Your task to perform on an android device: Clear the shopping cart on bestbuy.com. Add "asus rog" to the cart on bestbuy.com Image 0: 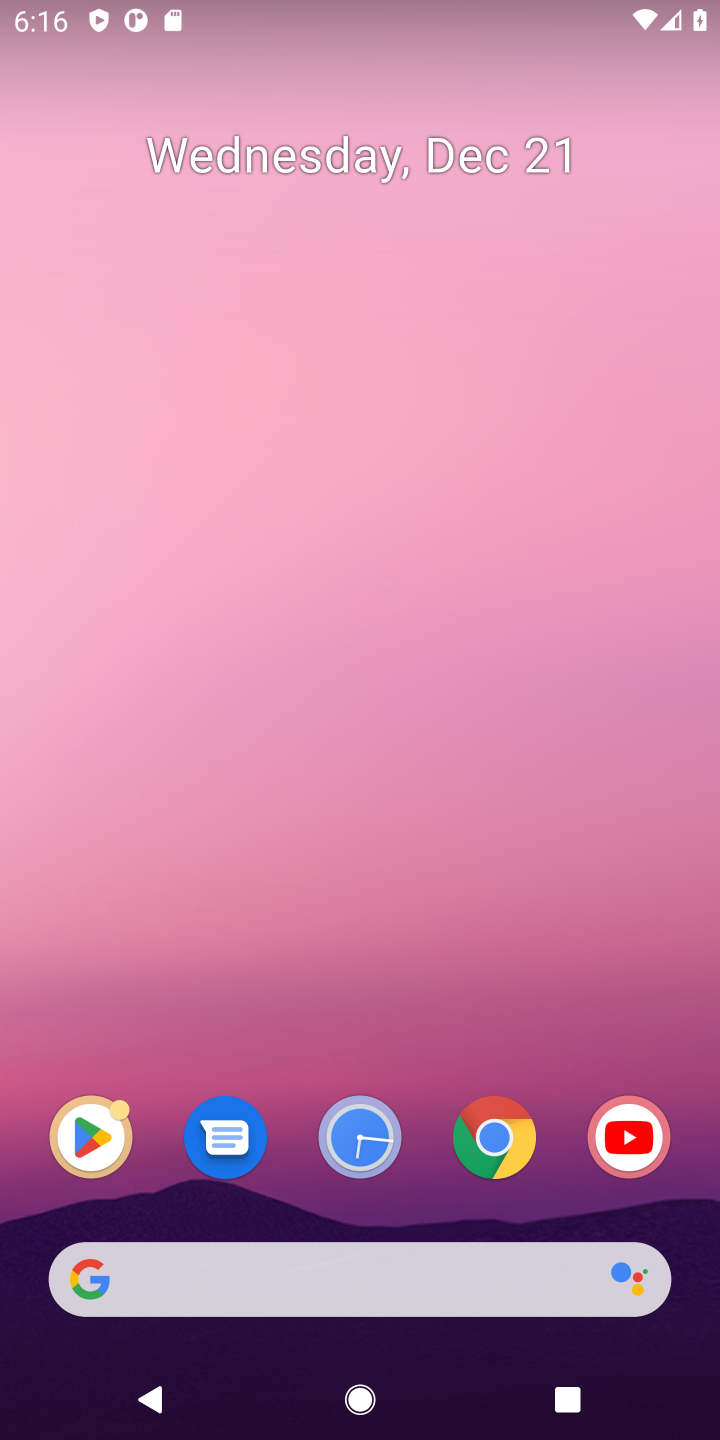
Step 0: click (493, 1160)
Your task to perform on an android device: Clear the shopping cart on bestbuy.com. Add "asus rog" to the cart on bestbuy.com Image 1: 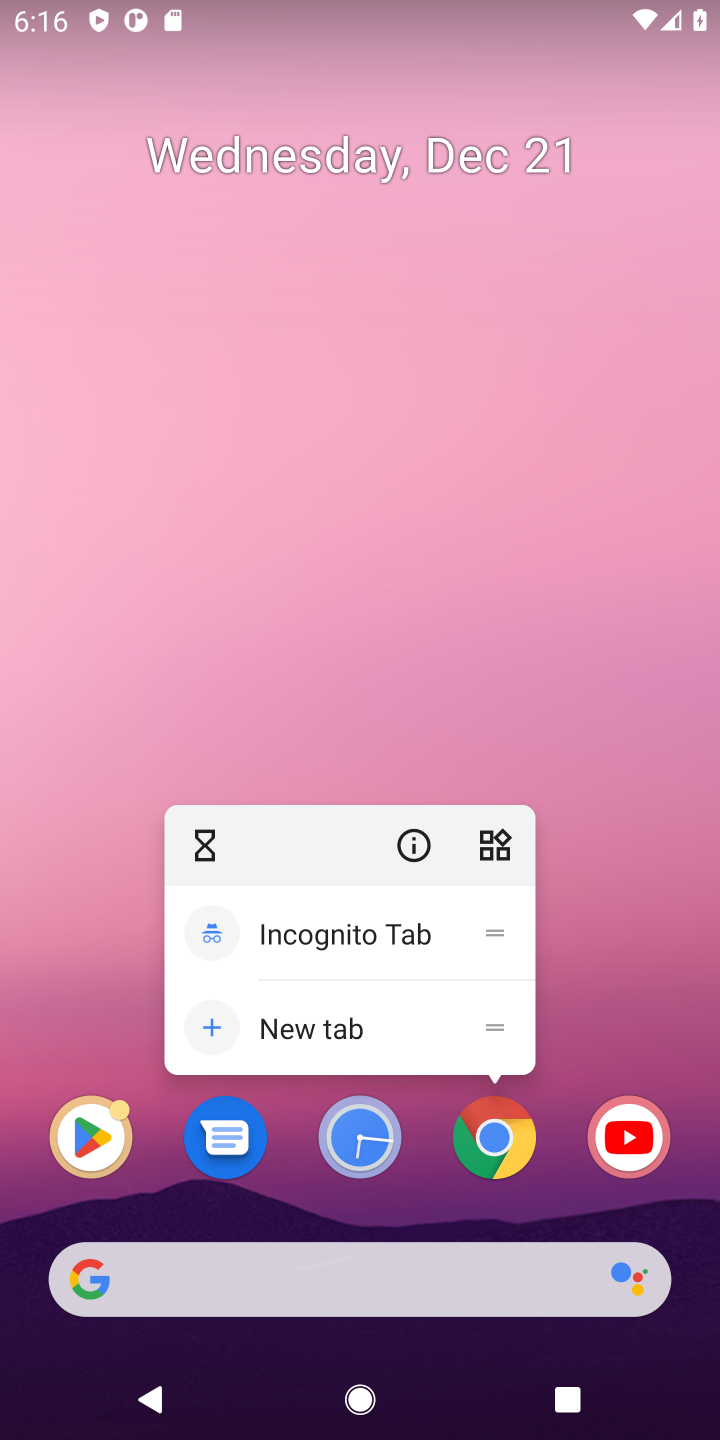
Step 1: click (498, 1151)
Your task to perform on an android device: Clear the shopping cart on bestbuy.com. Add "asus rog" to the cart on bestbuy.com Image 2: 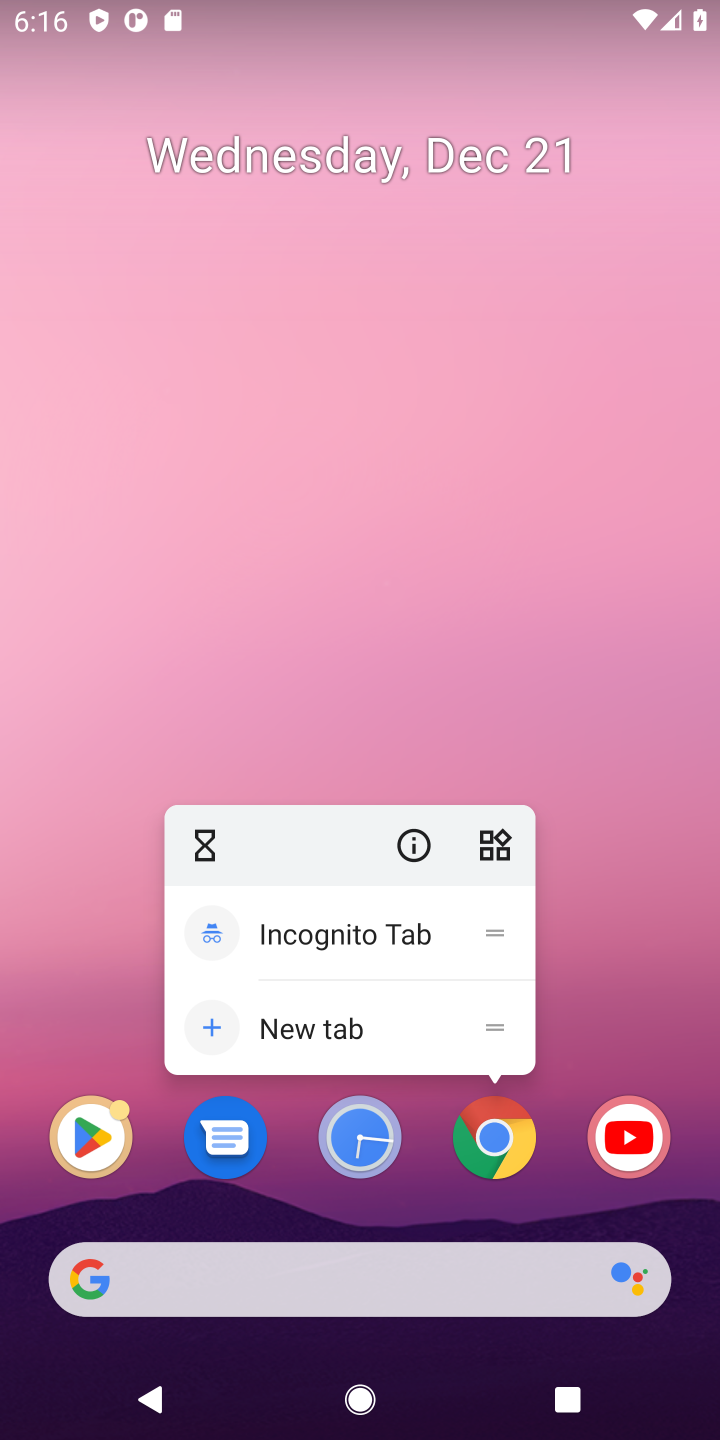
Step 2: click (498, 1151)
Your task to perform on an android device: Clear the shopping cart on bestbuy.com. Add "asus rog" to the cart on bestbuy.com Image 3: 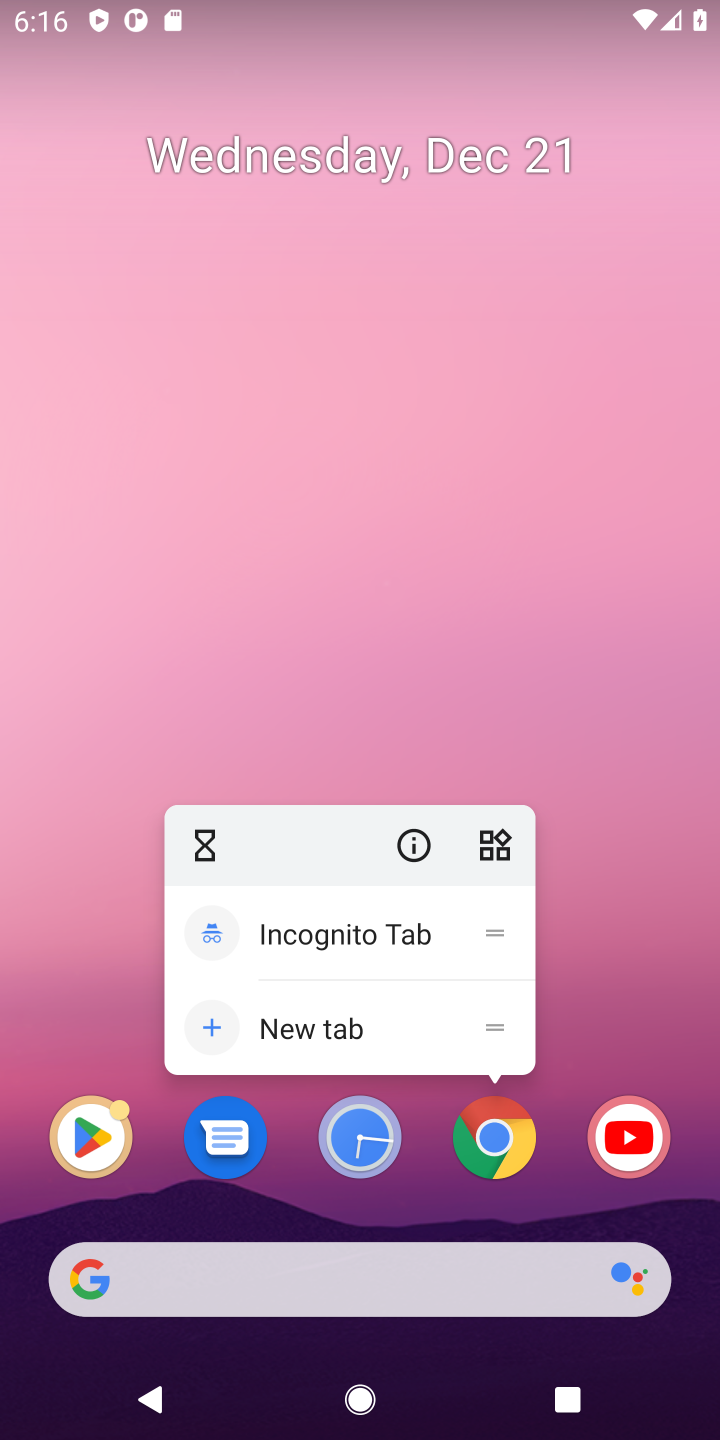
Step 3: click (498, 1151)
Your task to perform on an android device: Clear the shopping cart on bestbuy.com. Add "asus rog" to the cart on bestbuy.com Image 4: 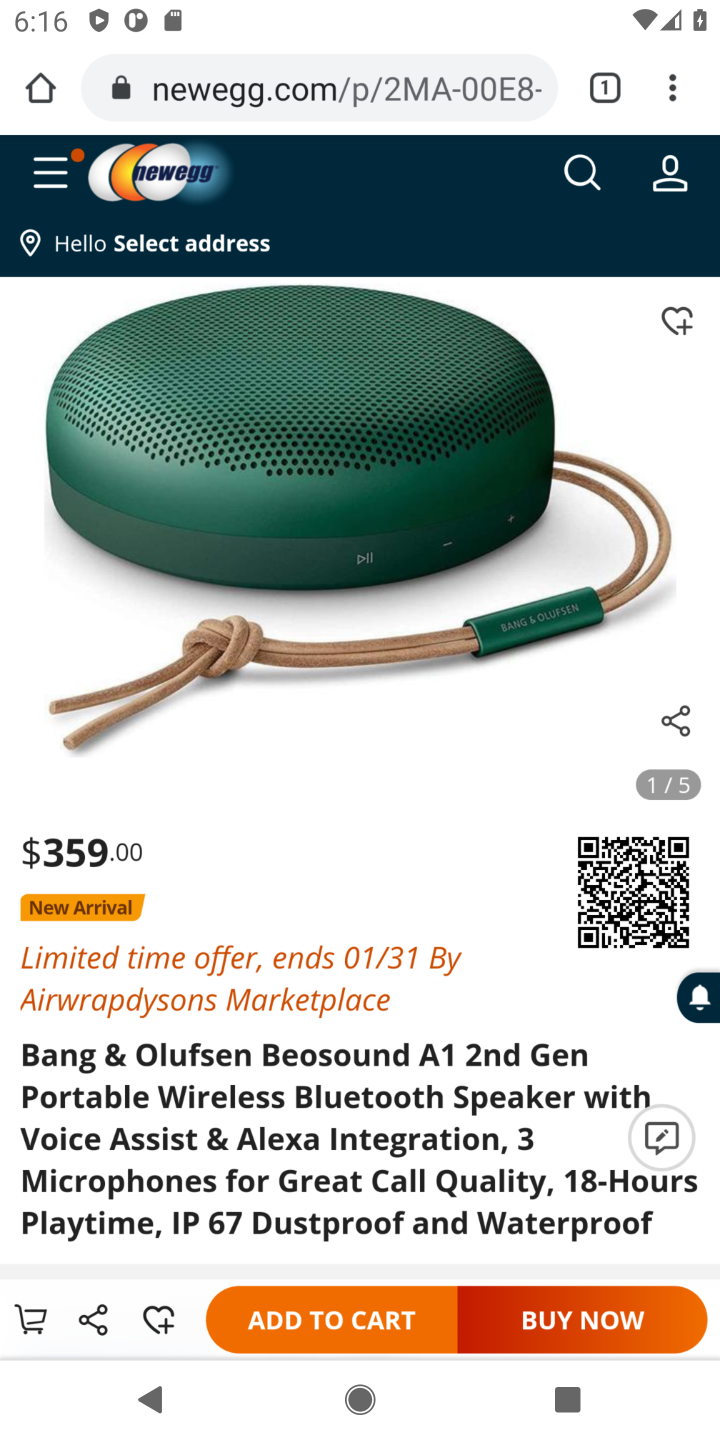
Step 4: click (298, 112)
Your task to perform on an android device: Clear the shopping cart on bestbuy.com. Add "asus rog" to the cart on bestbuy.com Image 5: 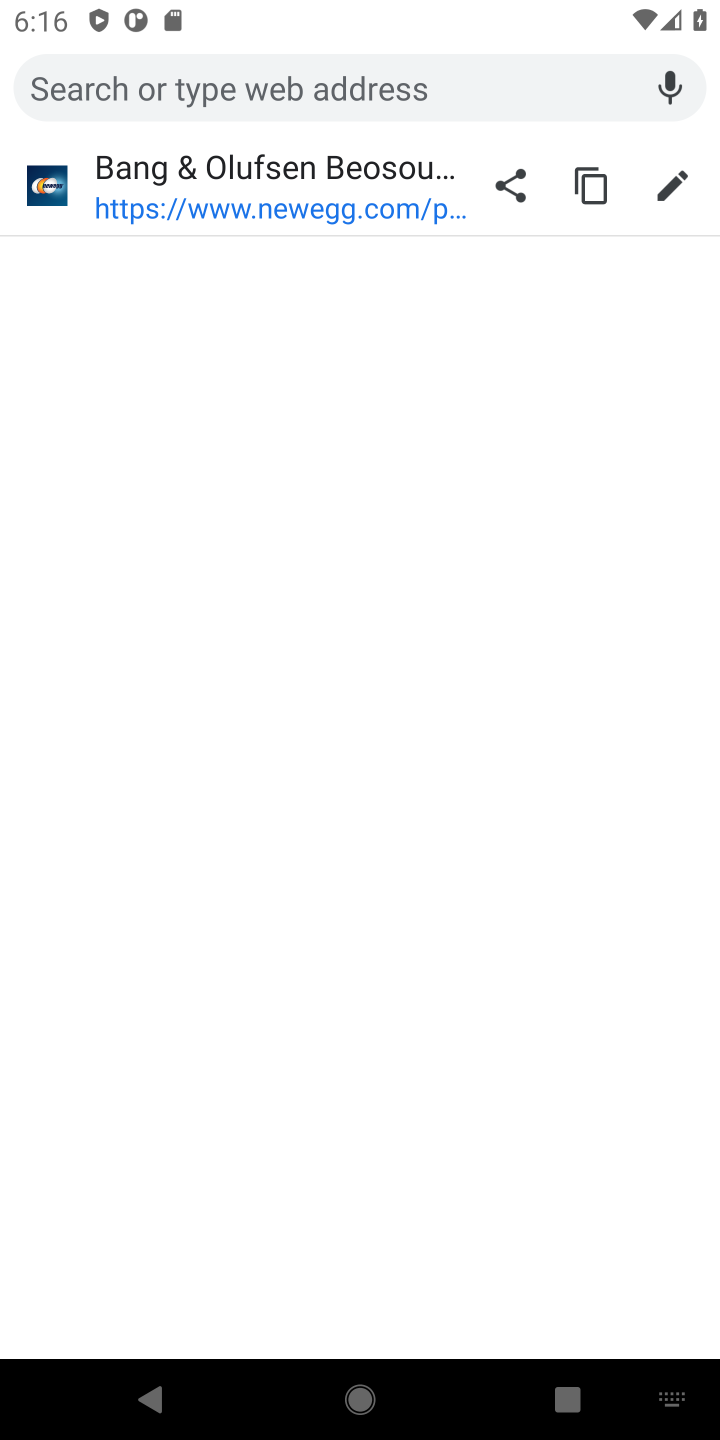
Step 5: type "bestbuy.com"
Your task to perform on an android device: Clear the shopping cart on bestbuy.com. Add "asus rog" to the cart on bestbuy.com Image 6: 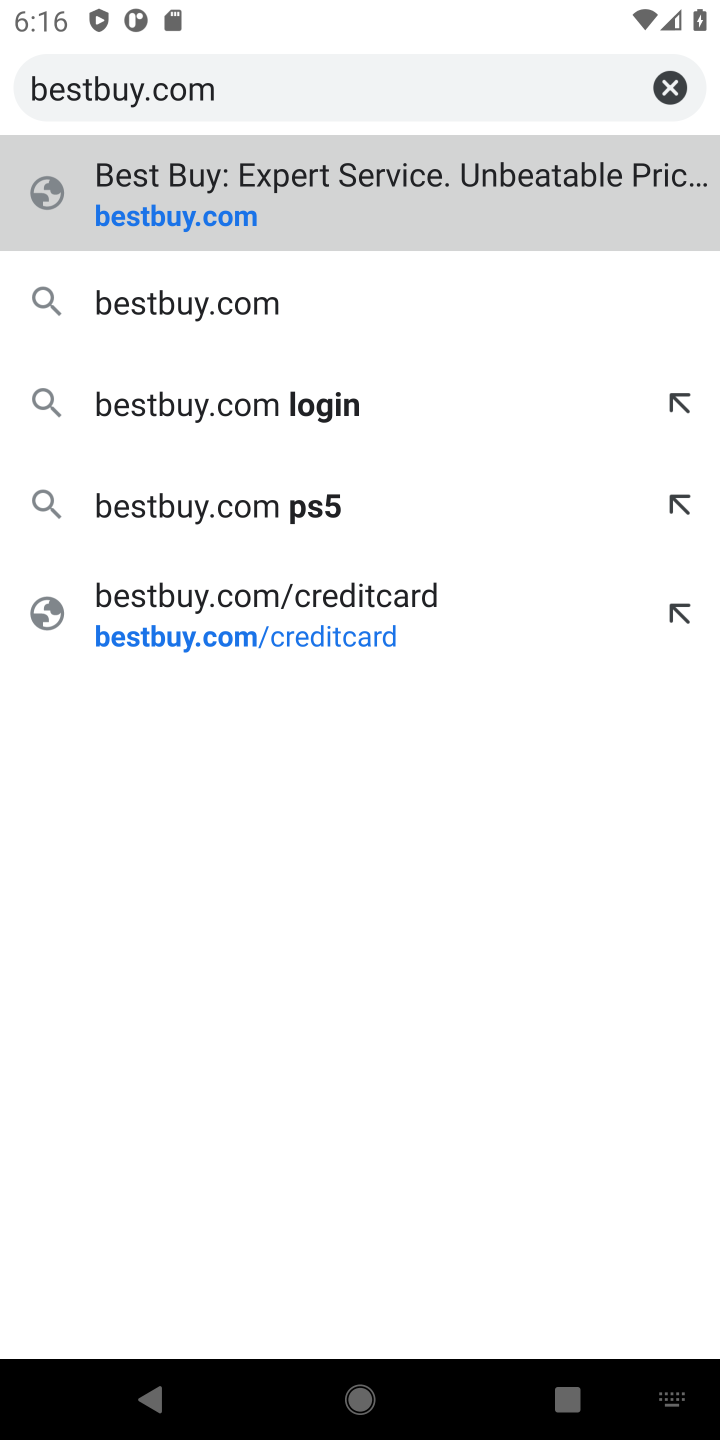
Step 6: click (165, 215)
Your task to perform on an android device: Clear the shopping cart on bestbuy.com. Add "asus rog" to the cart on bestbuy.com Image 7: 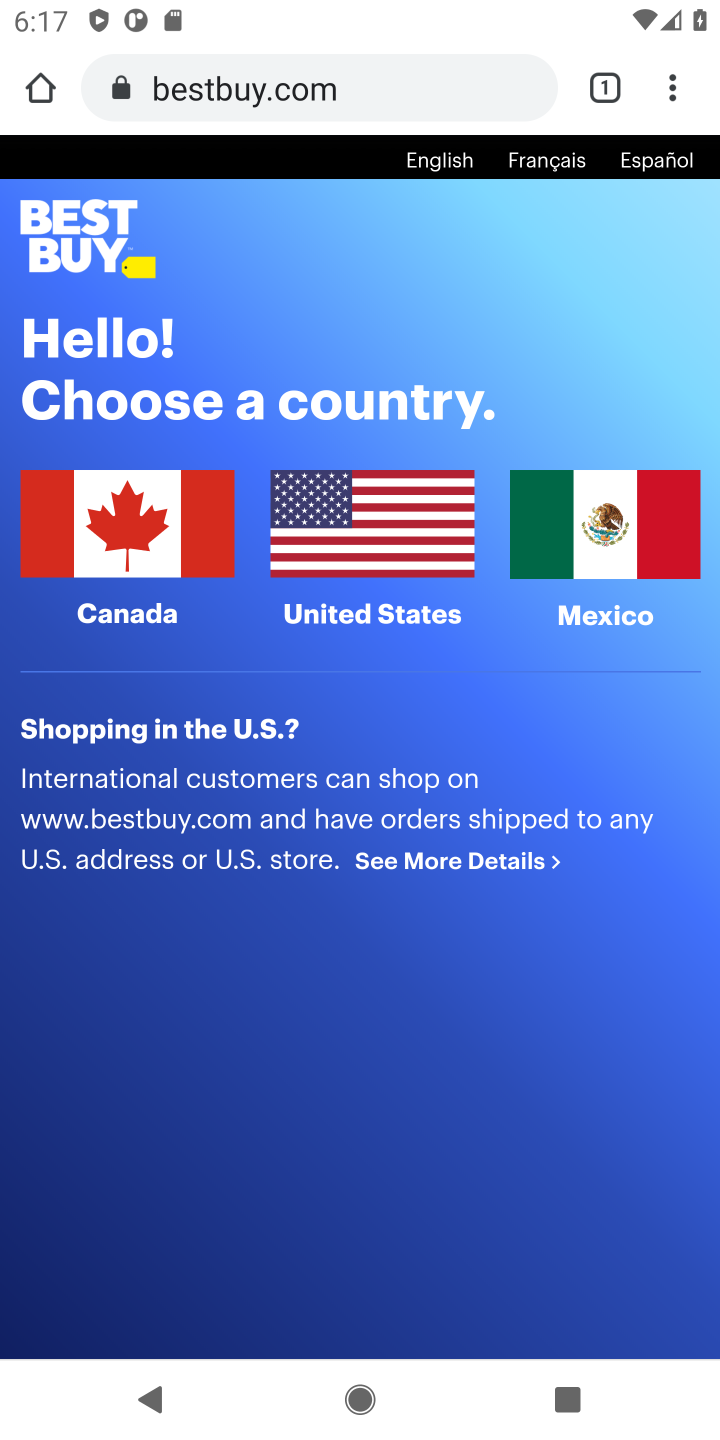
Step 7: click (383, 525)
Your task to perform on an android device: Clear the shopping cart on bestbuy.com. Add "asus rog" to the cart on bestbuy.com Image 8: 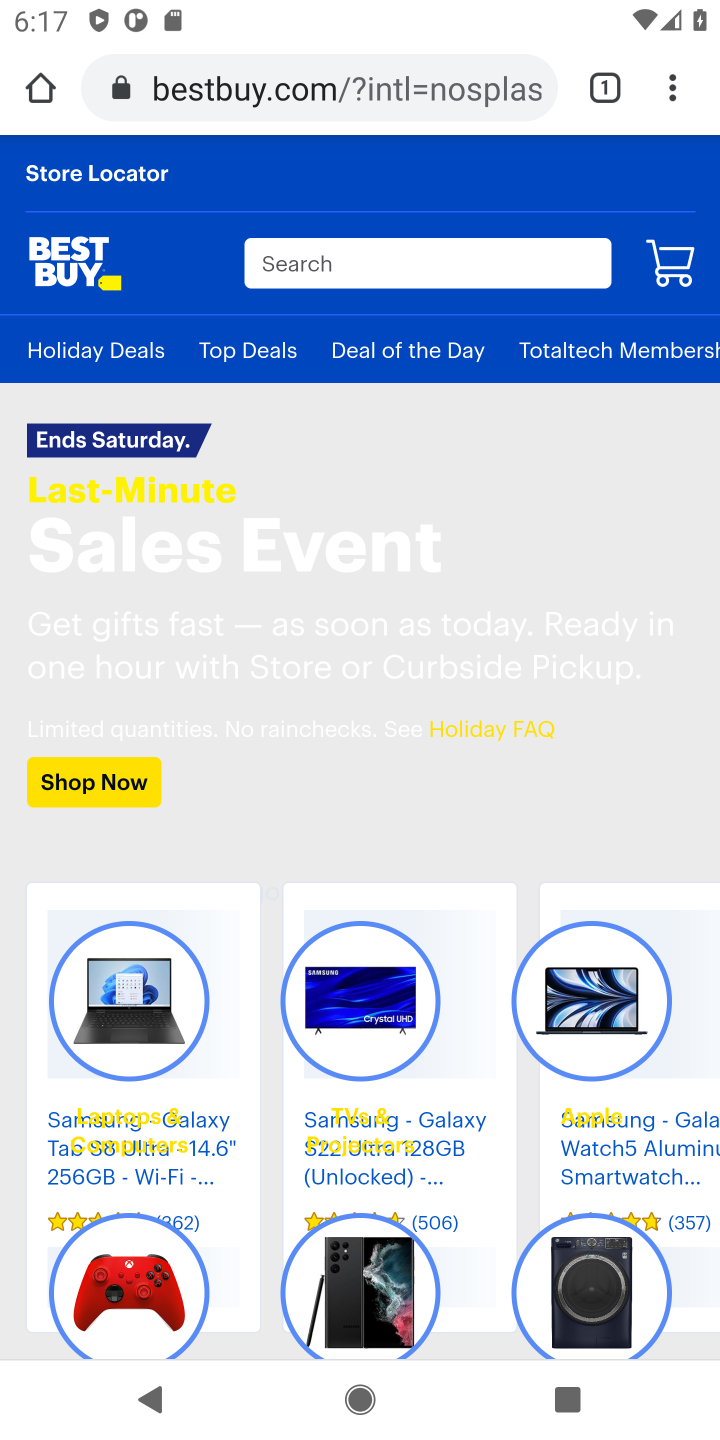
Step 8: click (671, 270)
Your task to perform on an android device: Clear the shopping cart on bestbuy.com. Add "asus rog" to the cart on bestbuy.com Image 9: 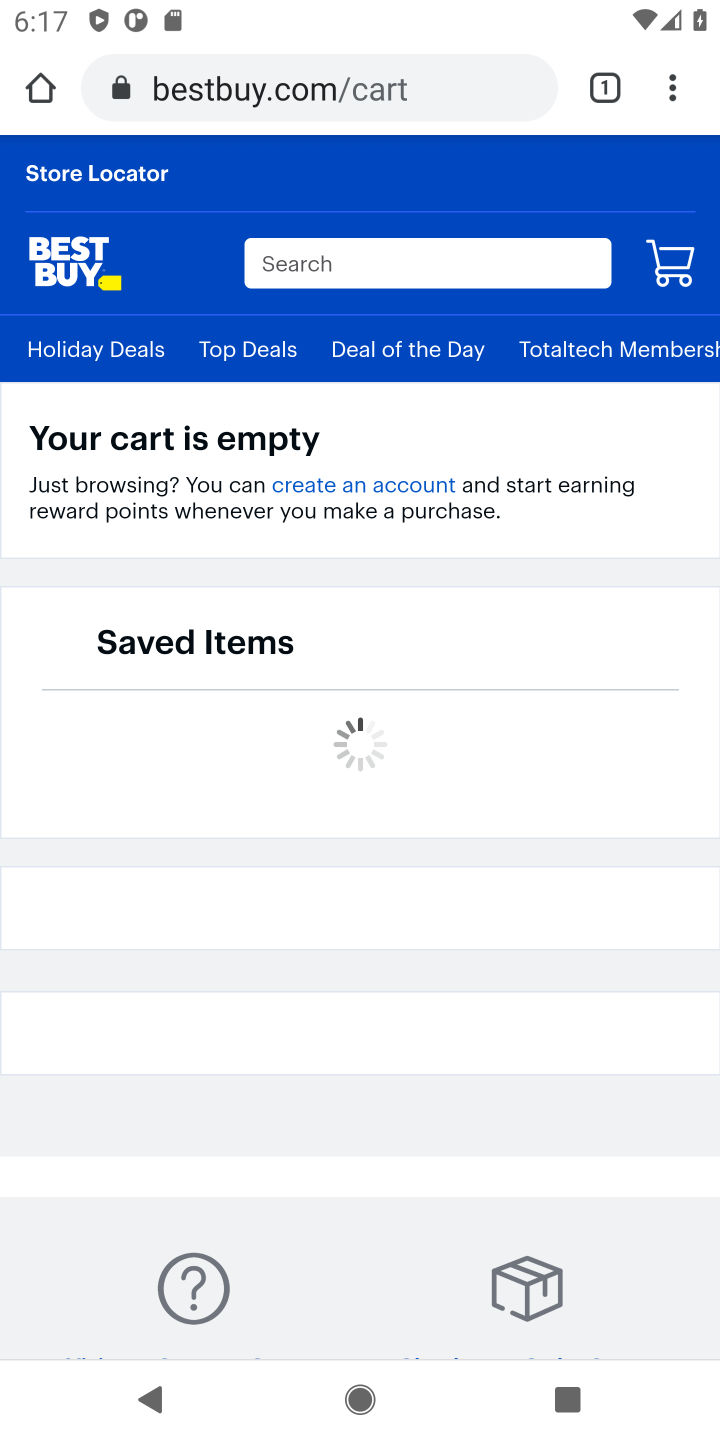
Step 9: click (326, 259)
Your task to perform on an android device: Clear the shopping cart on bestbuy.com. Add "asus rog" to the cart on bestbuy.com Image 10: 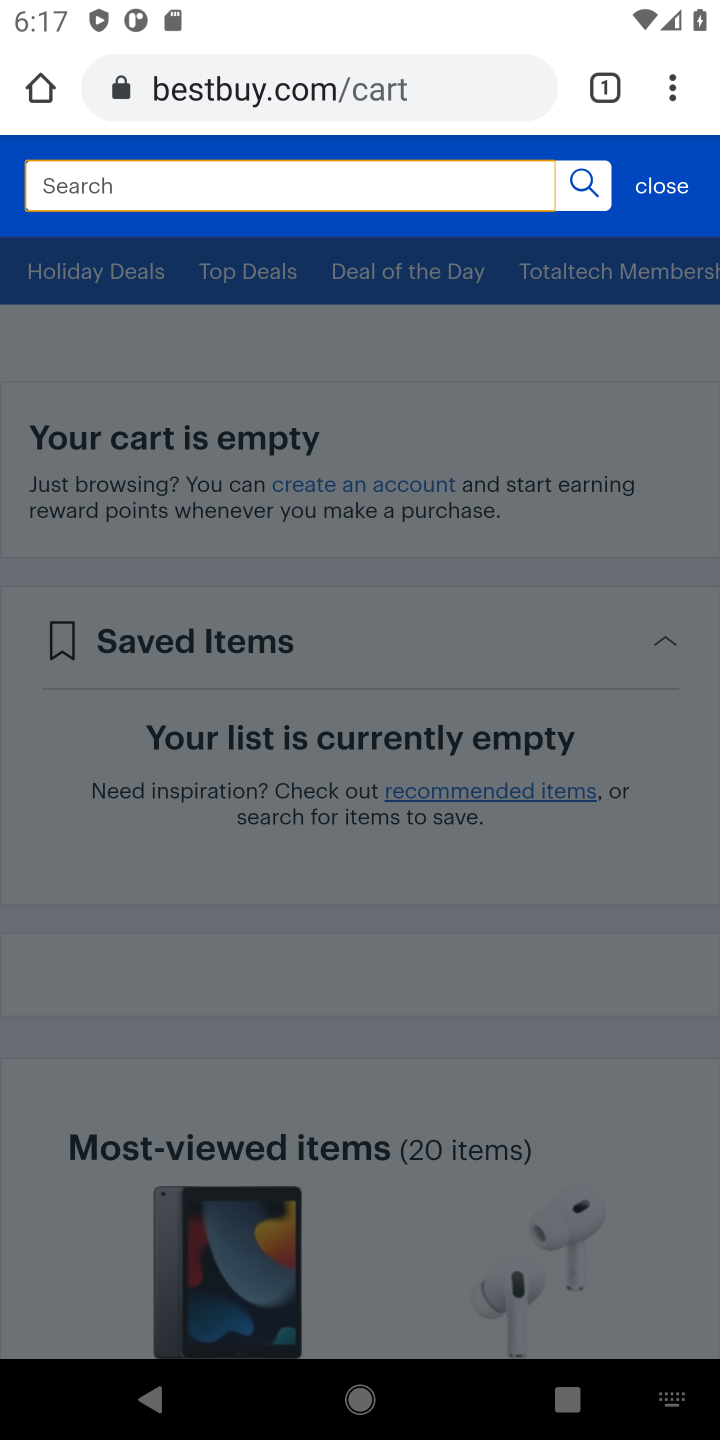
Step 10: type "asus rog"
Your task to perform on an android device: Clear the shopping cart on bestbuy.com. Add "asus rog" to the cart on bestbuy.com Image 11: 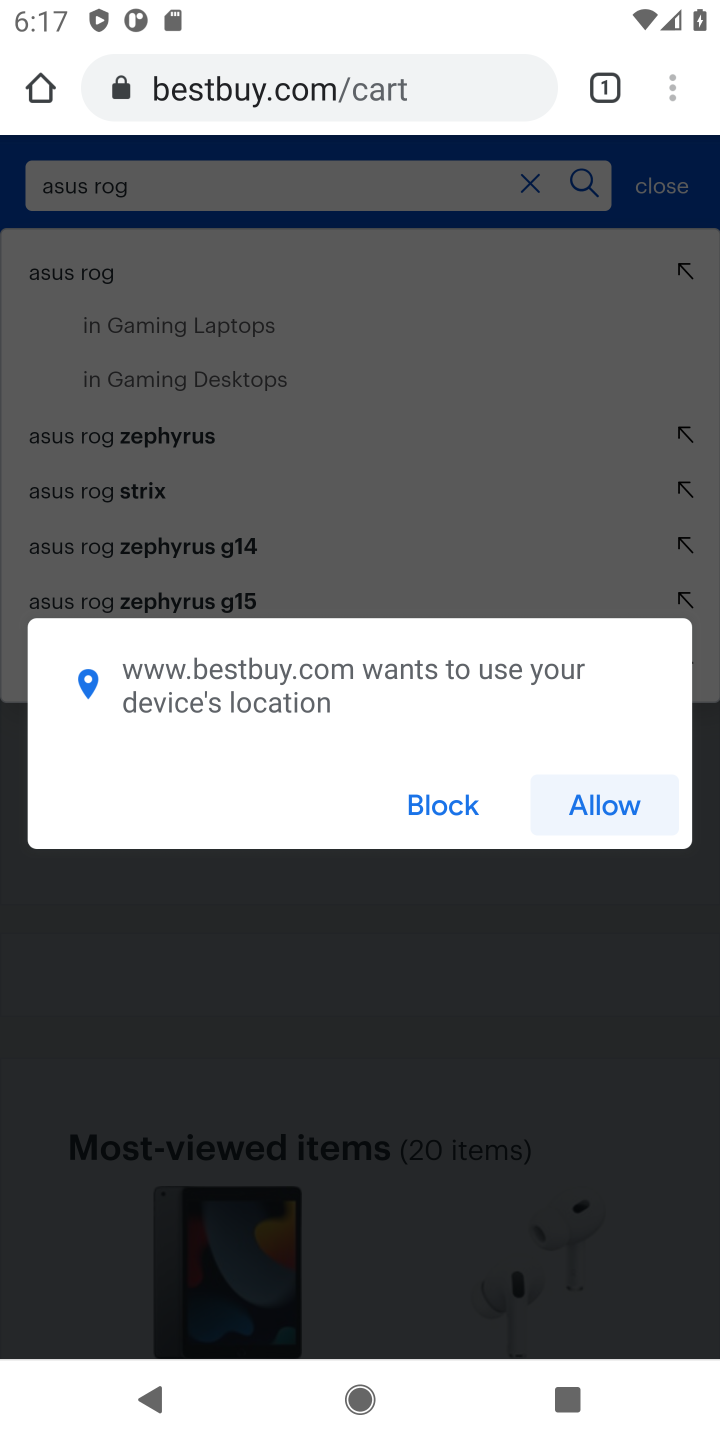
Step 11: click (418, 825)
Your task to perform on an android device: Clear the shopping cart on bestbuy.com. Add "asus rog" to the cart on bestbuy.com Image 12: 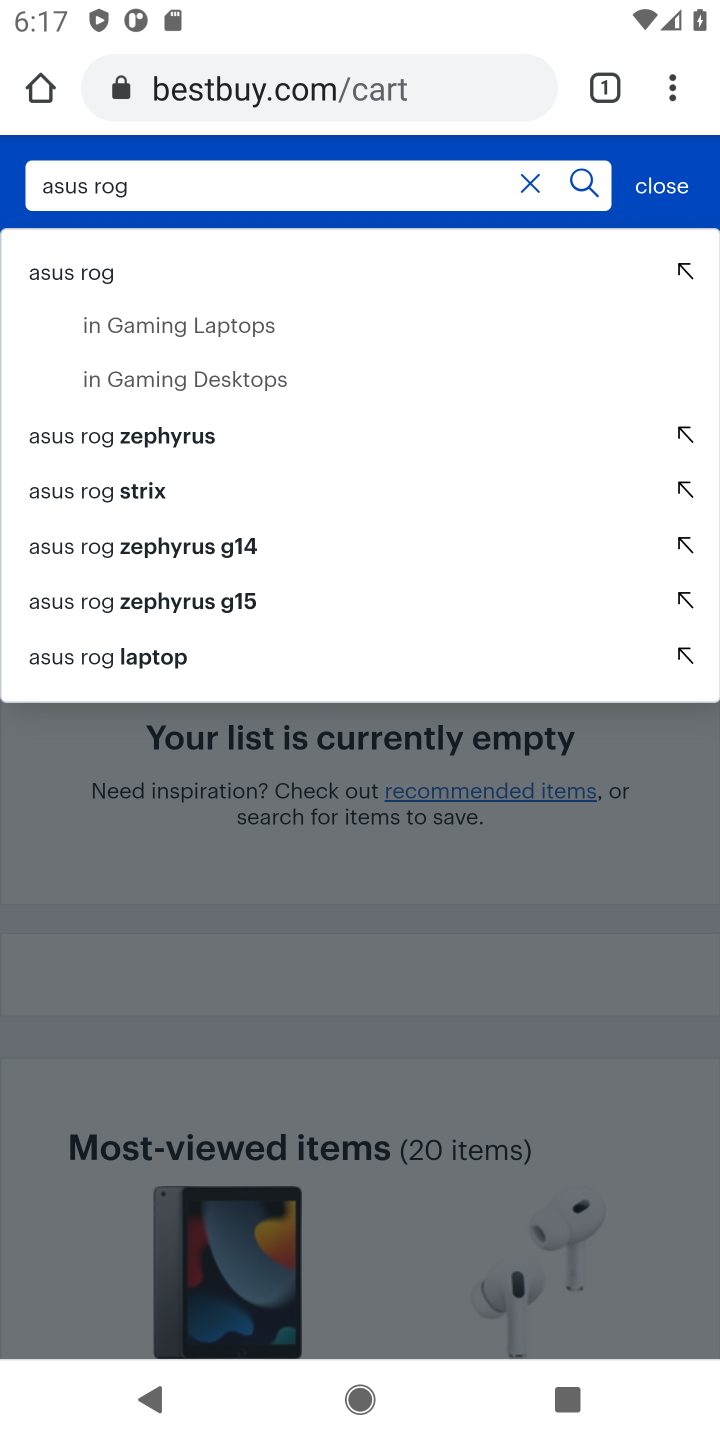
Step 12: click (67, 277)
Your task to perform on an android device: Clear the shopping cart on bestbuy.com. Add "asus rog" to the cart on bestbuy.com Image 13: 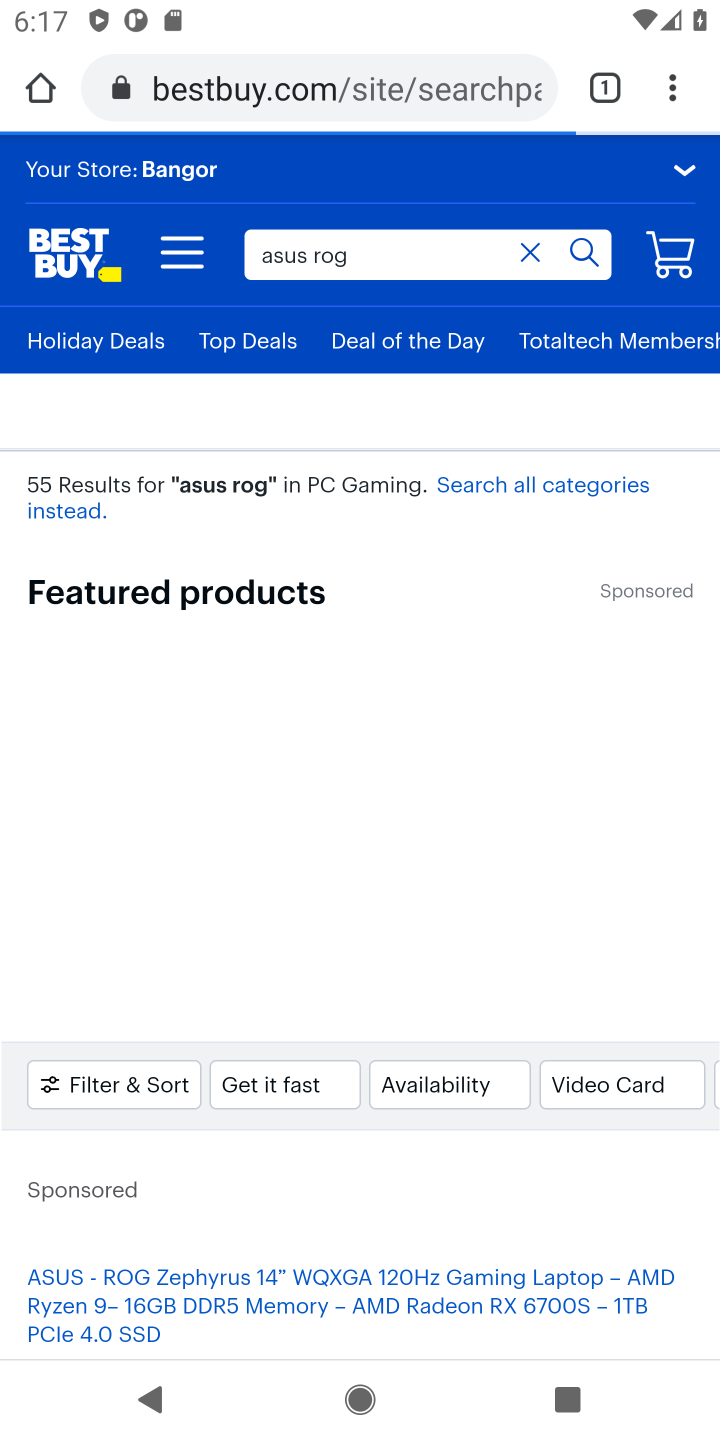
Step 13: drag from (318, 1031) to (251, 355)
Your task to perform on an android device: Clear the shopping cart on bestbuy.com. Add "asus rog" to the cart on bestbuy.com Image 14: 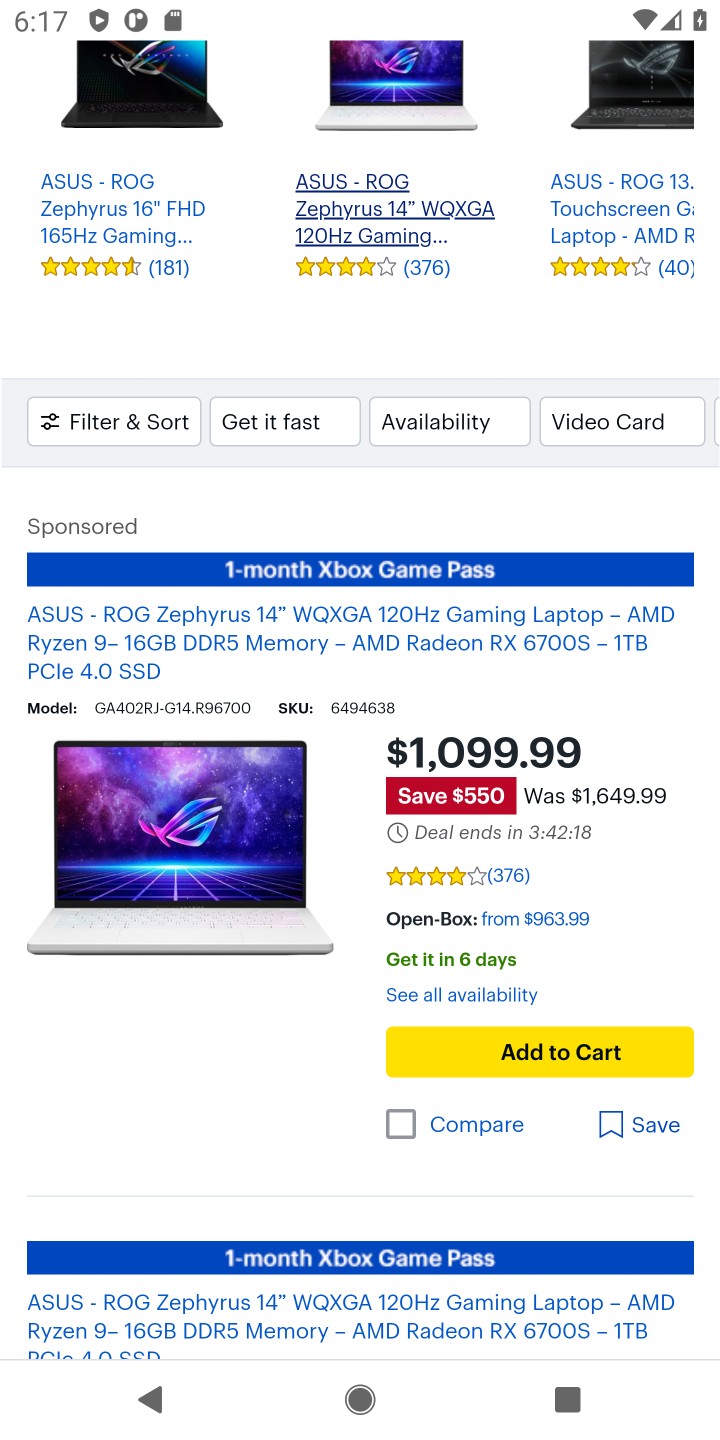
Step 14: click (508, 1073)
Your task to perform on an android device: Clear the shopping cart on bestbuy.com. Add "asus rog" to the cart on bestbuy.com Image 15: 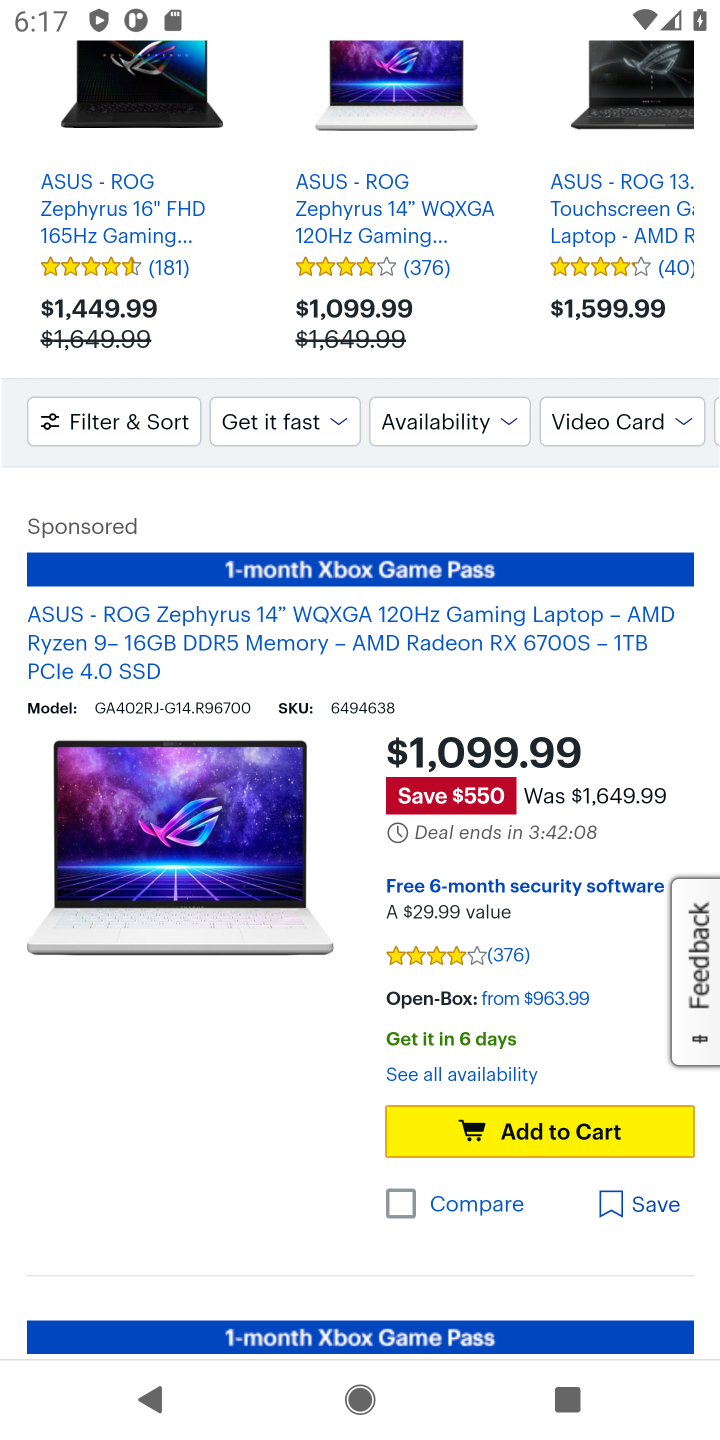
Step 15: click (508, 1122)
Your task to perform on an android device: Clear the shopping cart on bestbuy.com. Add "asus rog" to the cart on bestbuy.com Image 16: 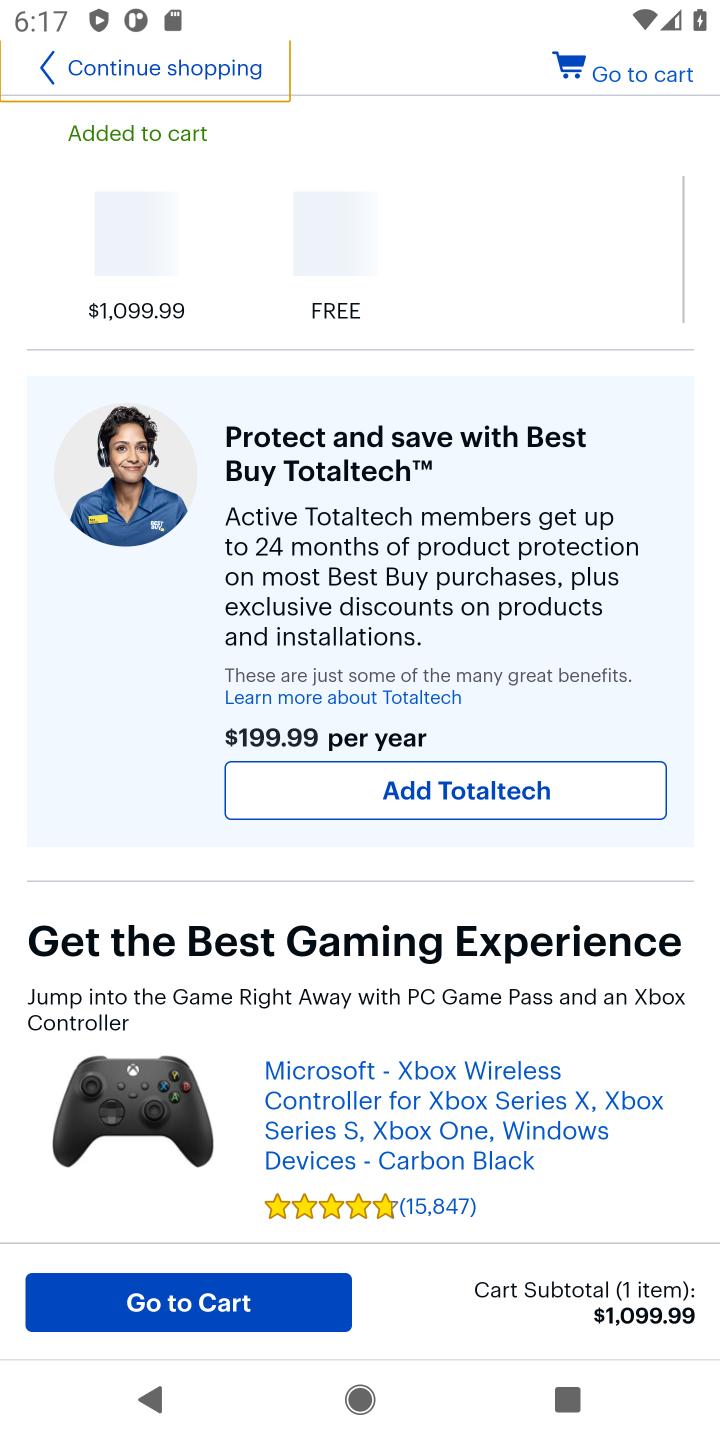
Step 16: task complete